Your task to perform on an android device: Show the shopping cart on walmart.com. Add "razer blackwidow" to the cart on walmart.com, then select checkout. Image 0: 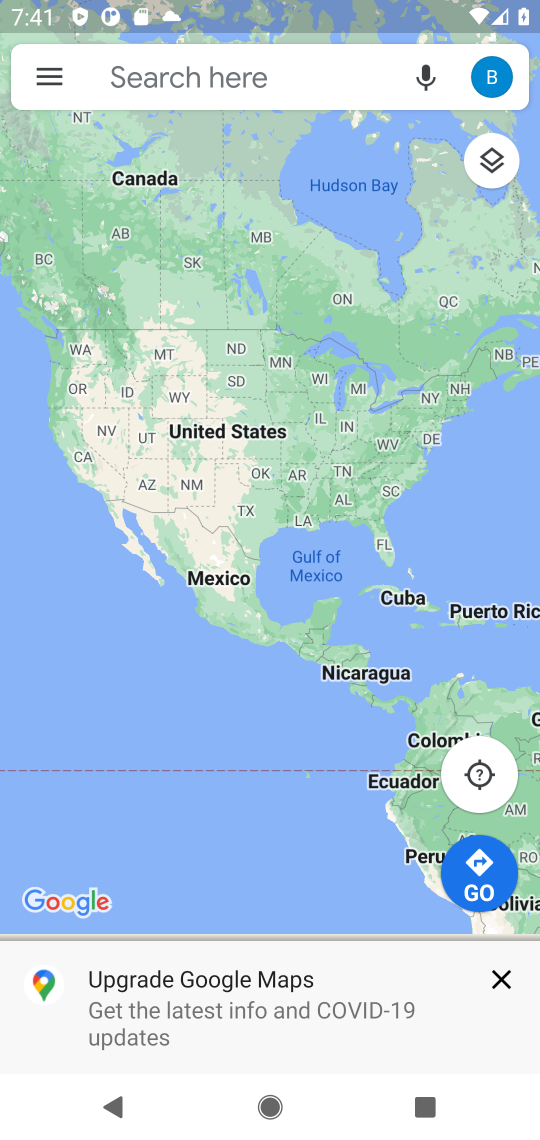
Step 0: press home button
Your task to perform on an android device: Show the shopping cart on walmart.com. Add "razer blackwidow" to the cart on walmart.com, then select checkout. Image 1: 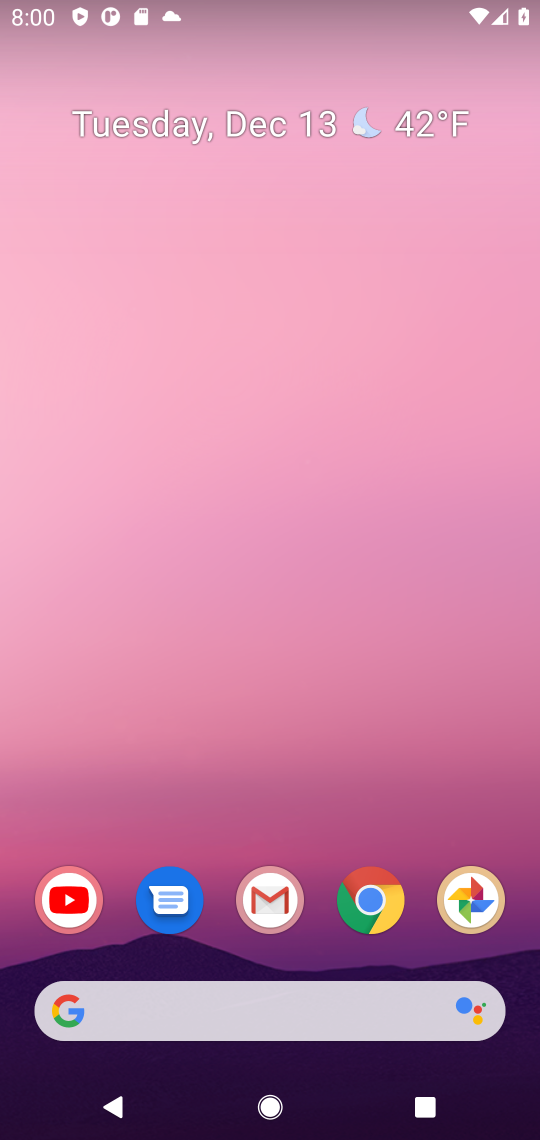
Step 1: click (376, 897)
Your task to perform on an android device: Show the shopping cart on walmart.com. Add "razer blackwidow" to the cart on walmart.com, then select checkout. Image 2: 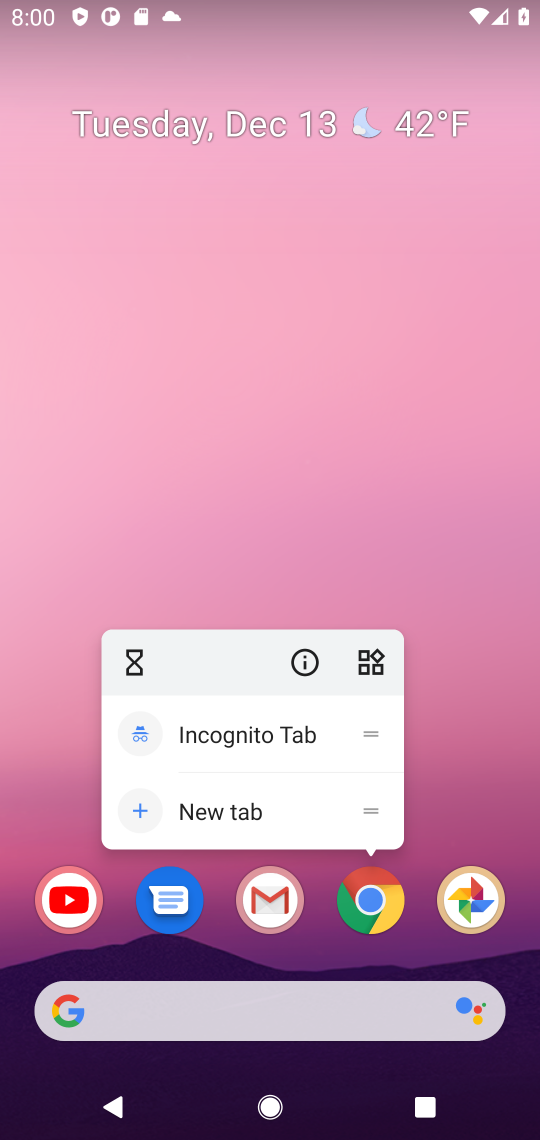
Step 2: click (376, 897)
Your task to perform on an android device: Show the shopping cart on walmart.com. Add "razer blackwidow" to the cart on walmart.com, then select checkout. Image 3: 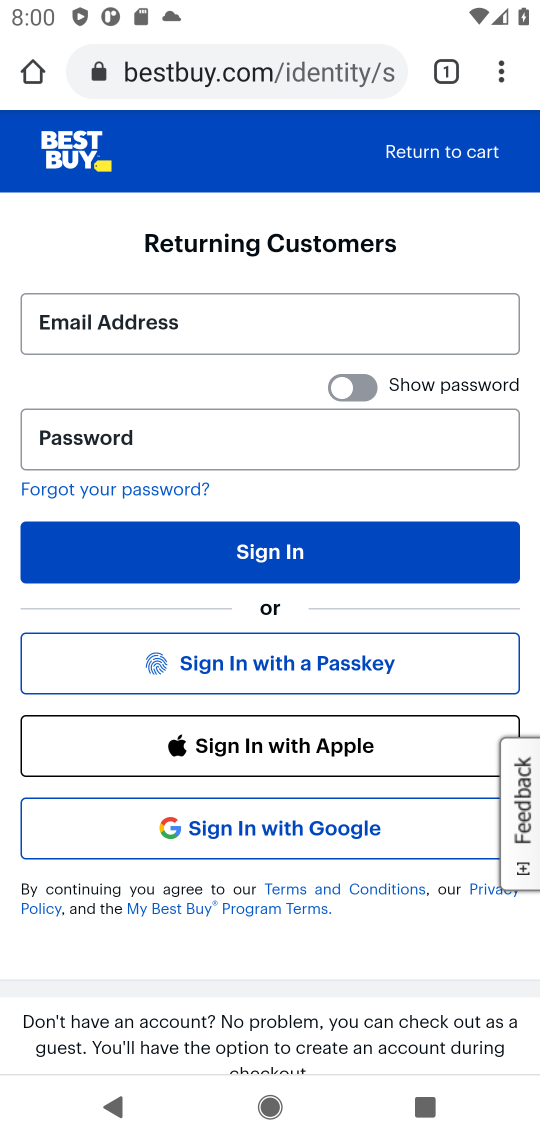
Step 3: click (301, 74)
Your task to perform on an android device: Show the shopping cart on walmart.com. Add "razer blackwidow" to the cart on walmart.com, then select checkout. Image 4: 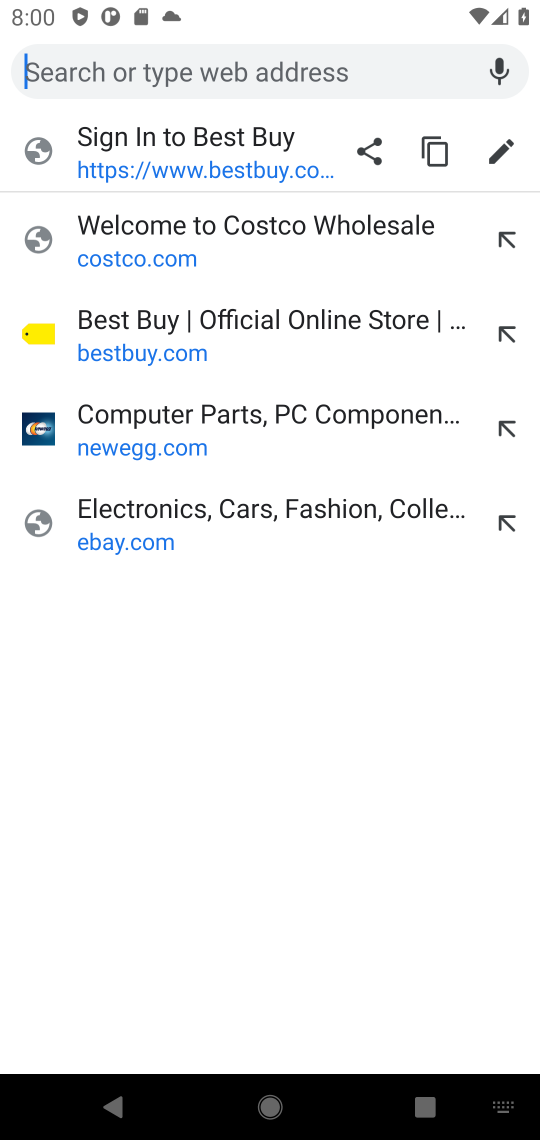
Step 4: type "walmart"
Your task to perform on an android device: Show the shopping cart on walmart.com. Add "razer blackwidow" to the cart on walmart.com, then select checkout. Image 5: 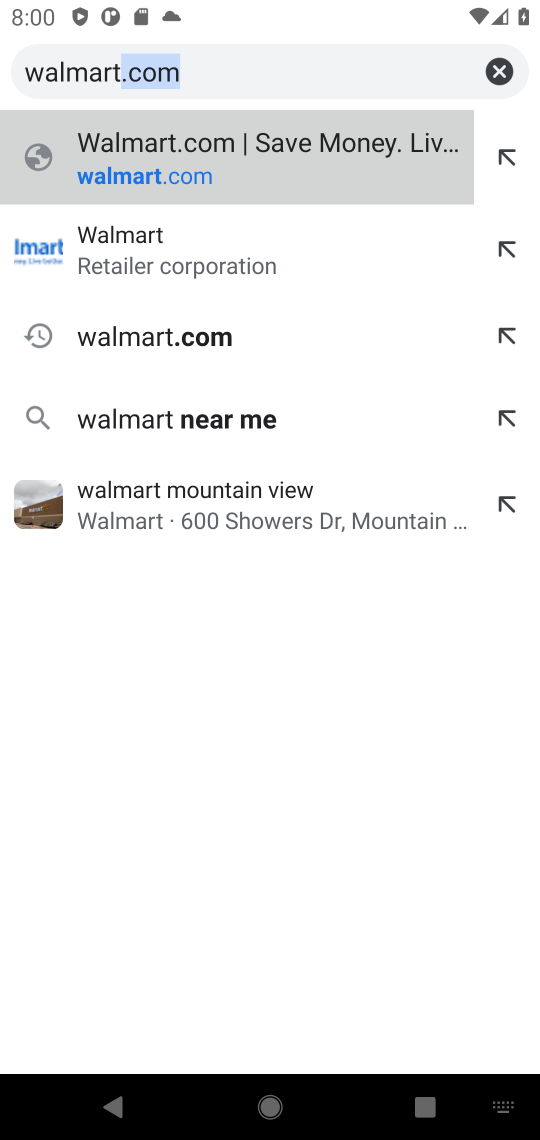
Step 5: click (167, 143)
Your task to perform on an android device: Show the shopping cart on walmart.com. Add "razer blackwidow" to the cart on walmart.com, then select checkout. Image 6: 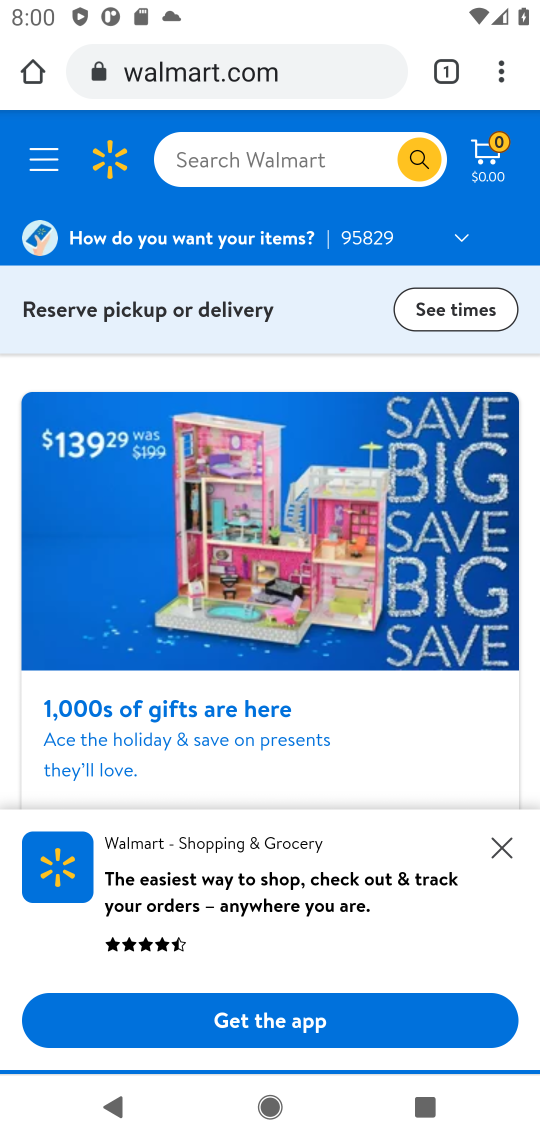
Step 6: click (313, 161)
Your task to perform on an android device: Show the shopping cart on walmart.com. Add "razer blackwidow" to the cart on walmart.com, then select checkout. Image 7: 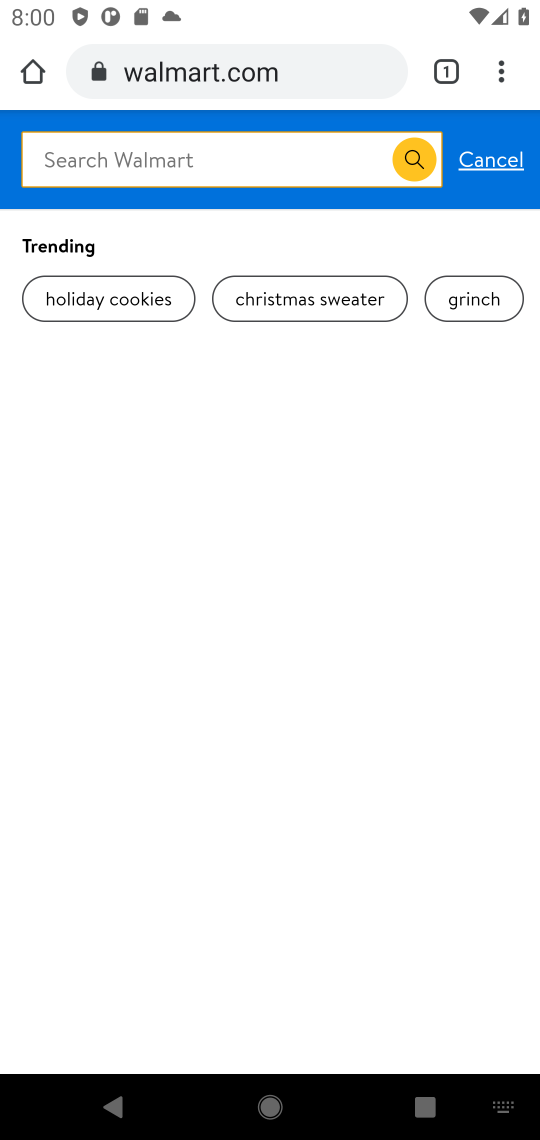
Step 7: type "razer blackwidow"
Your task to perform on an android device: Show the shopping cart on walmart.com. Add "razer blackwidow" to the cart on walmart.com, then select checkout. Image 8: 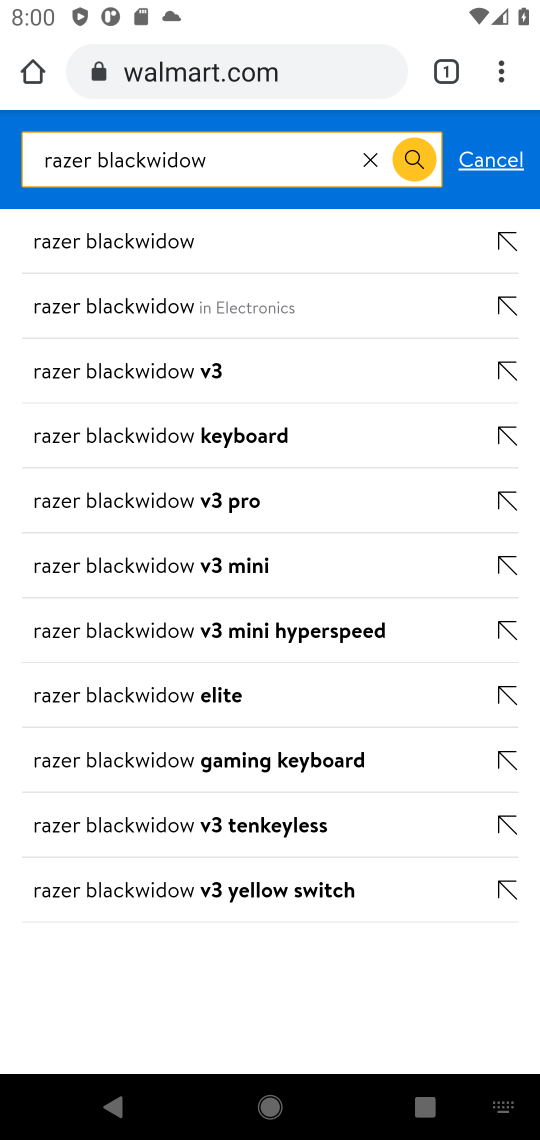
Step 8: click (200, 243)
Your task to perform on an android device: Show the shopping cart on walmart.com. Add "razer blackwidow" to the cart on walmart.com, then select checkout. Image 9: 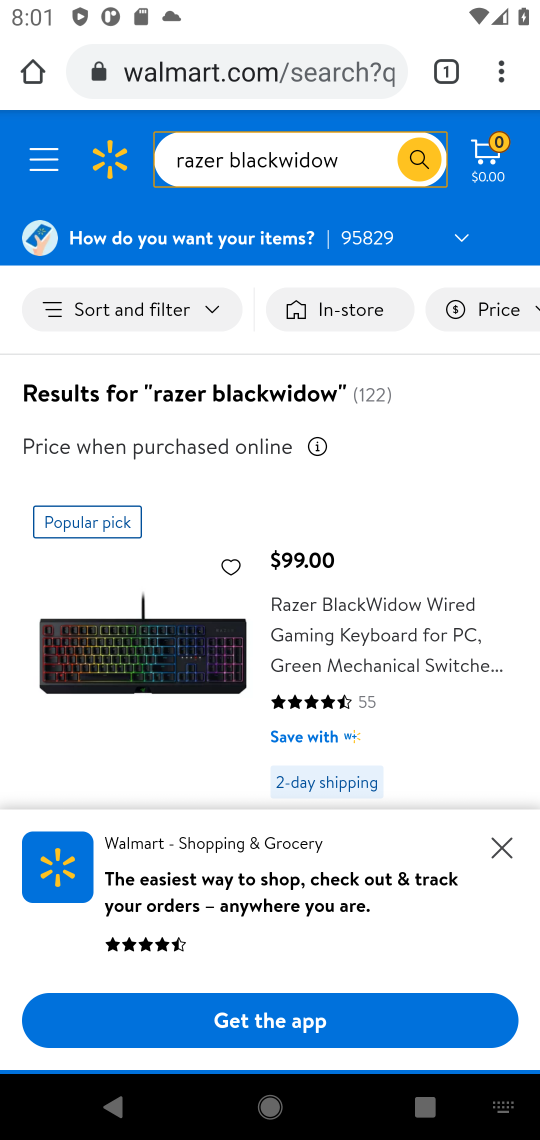
Step 9: click (412, 659)
Your task to perform on an android device: Show the shopping cart on walmart.com. Add "razer blackwidow" to the cart on walmart.com, then select checkout. Image 10: 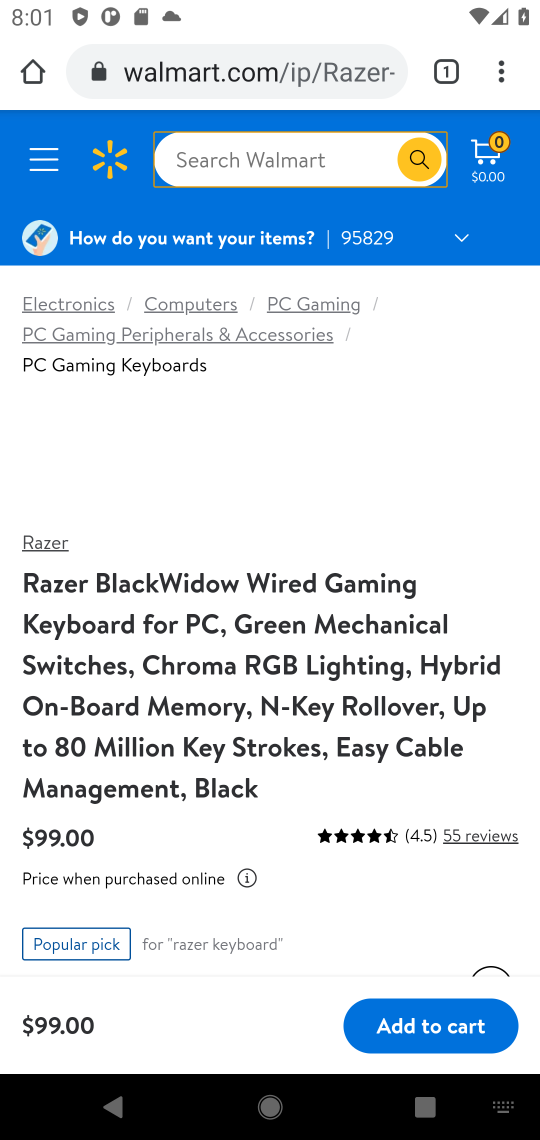
Step 10: click (426, 1024)
Your task to perform on an android device: Show the shopping cart on walmart.com. Add "razer blackwidow" to the cart on walmart.com, then select checkout. Image 11: 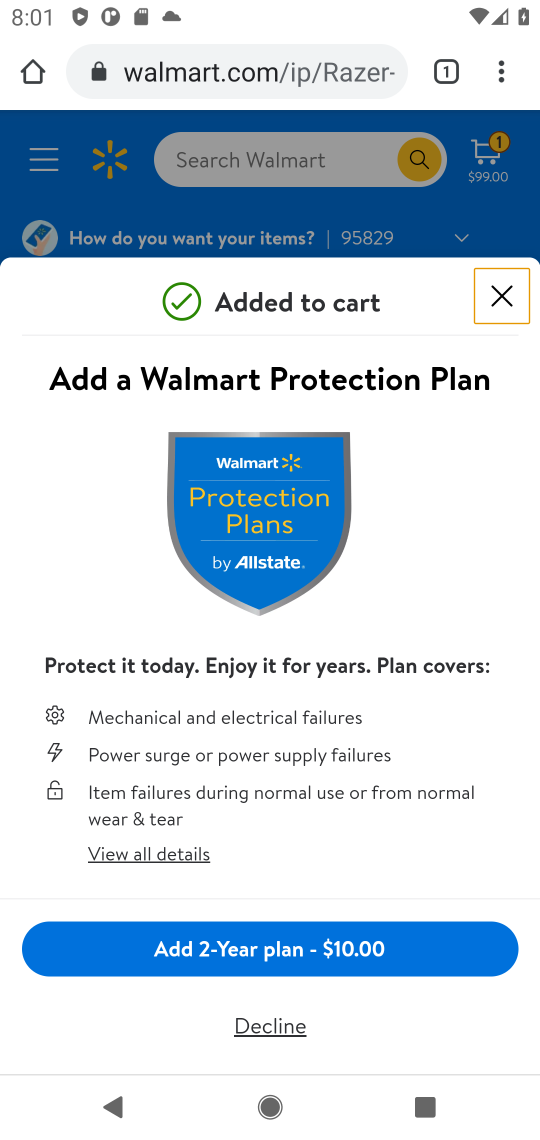
Step 11: click (496, 290)
Your task to perform on an android device: Show the shopping cart on walmart.com. Add "razer blackwidow" to the cart on walmart.com, then select checkout. Image 12: 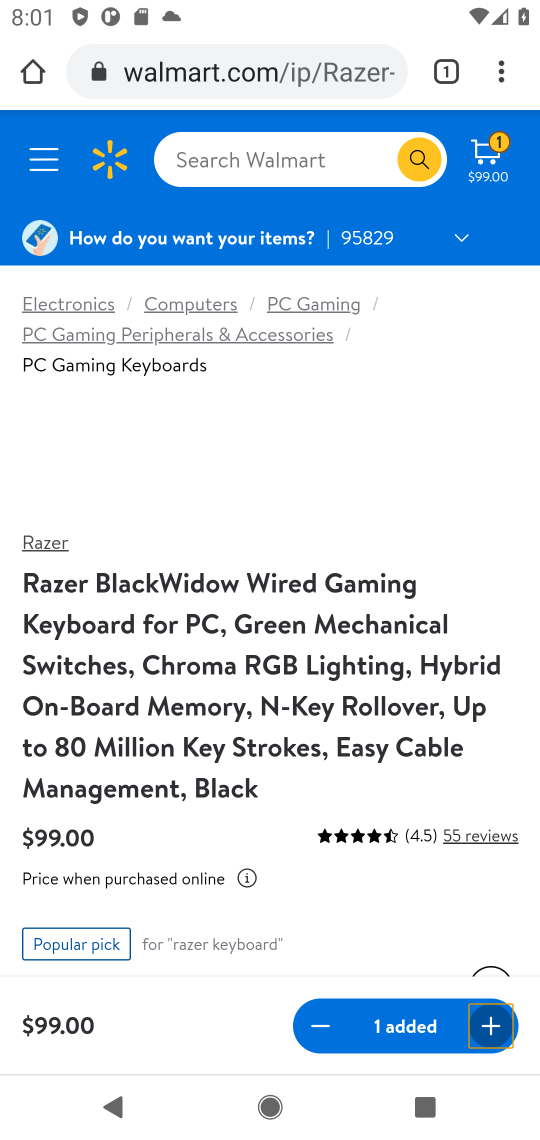
Step 12: click (489, 155)
Your task to perform on an android device: Show the shopping cart on walmart.com. Add "razer blackwidow" to the cart on walmart.com, then select checkout. Image 13: 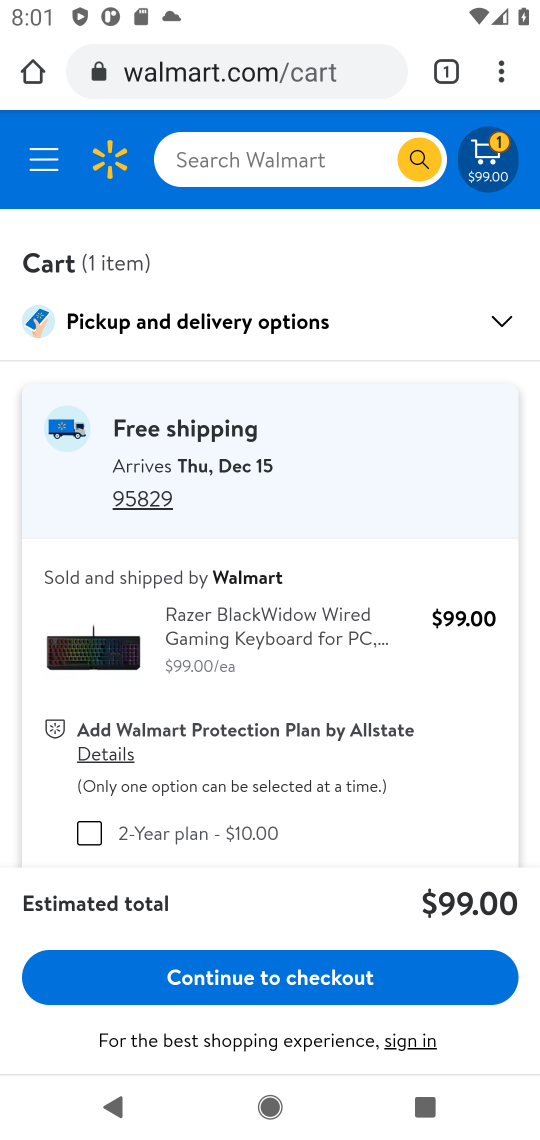
Step 13: click (281, 981)
Your task to perform on an android device: Show the shopping cart on walmart.com. Add "razer blackwidow" to the cart on walmart.com, then select checkout. Image 14: 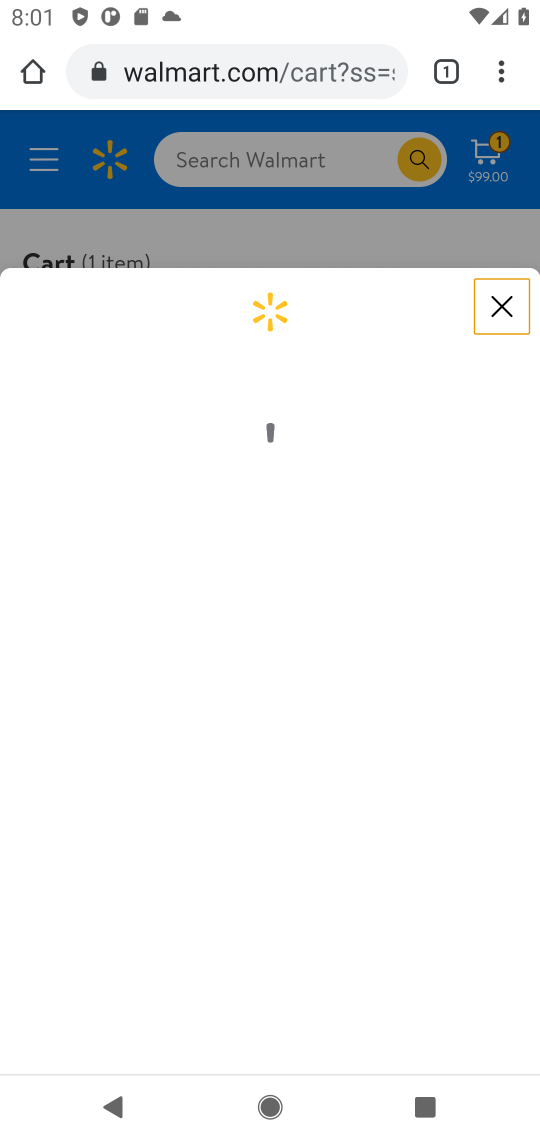
Step 14: task complete